Your task to perform on an android device: Go to ESPN.com Image 0: 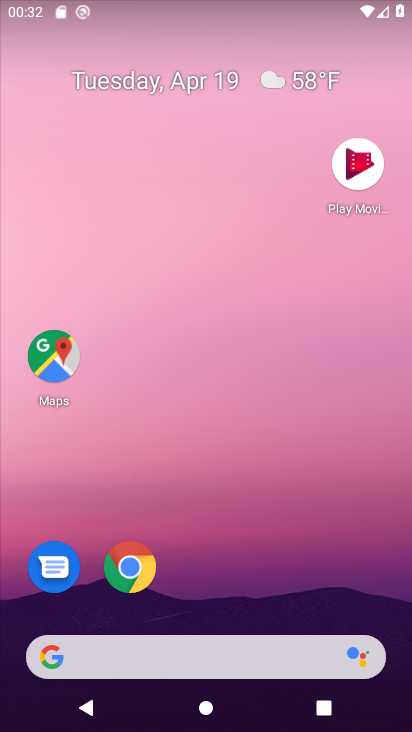
Step 0: drag from (215, 630) to (261, 371)
Your task to perform on an android device: Go to ESPN.com Image 1: 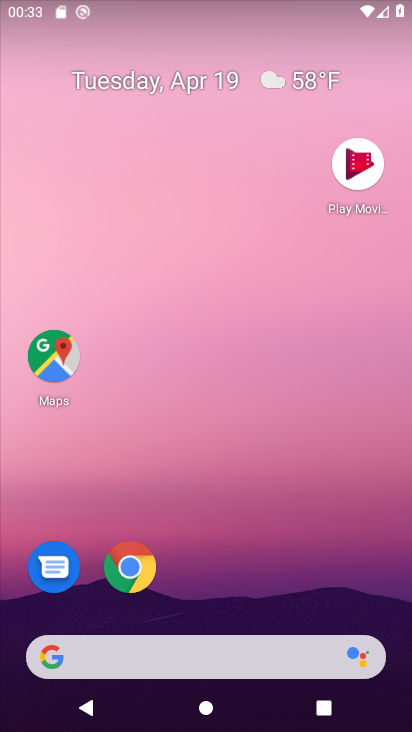
Step 1: drag from (213, 655) to (218, 99)
Your task to perform on an android device: Go to ESPN.com Image 2: 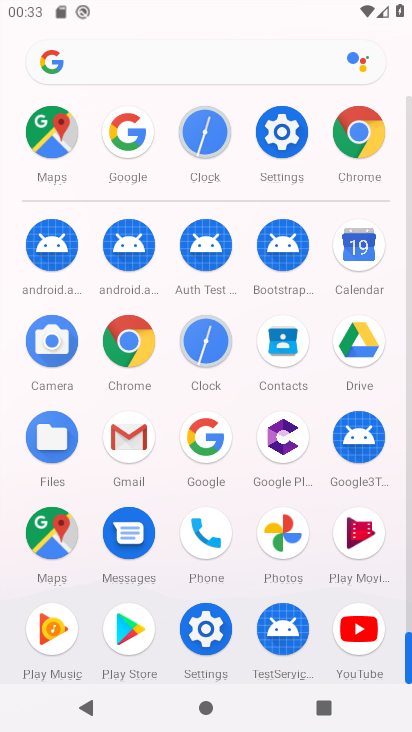
Step 2: click (129, 331)
Your task to perform on an android device: Go to ESPN.com Image 3: 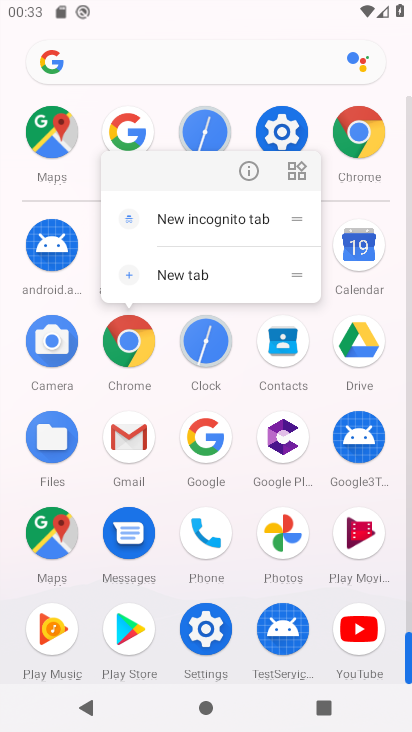
Step 3: click (255, 170)
Your task to perform on an android device: Go to ESPN.com Image 4: 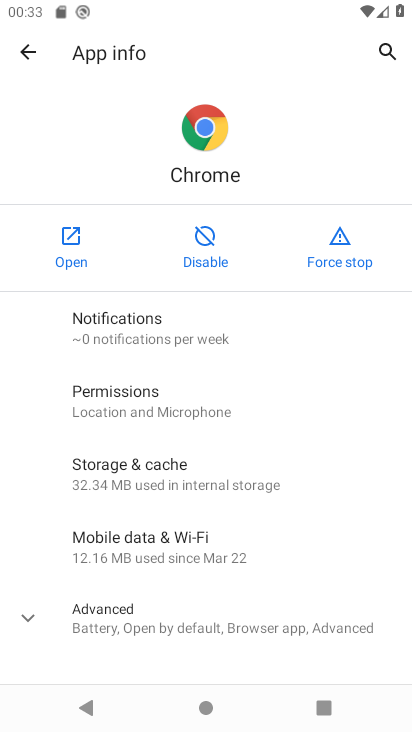
Step 4: click (79, 268)
Your task to perform on an android device: Go to ESPN.com Image 5: 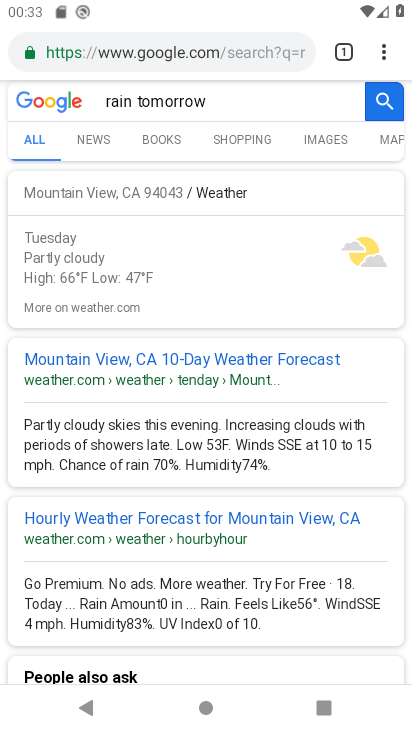
Step 5: click (173, 60)
Your task to perform on an android device: Go to ESPN.com Image 6: 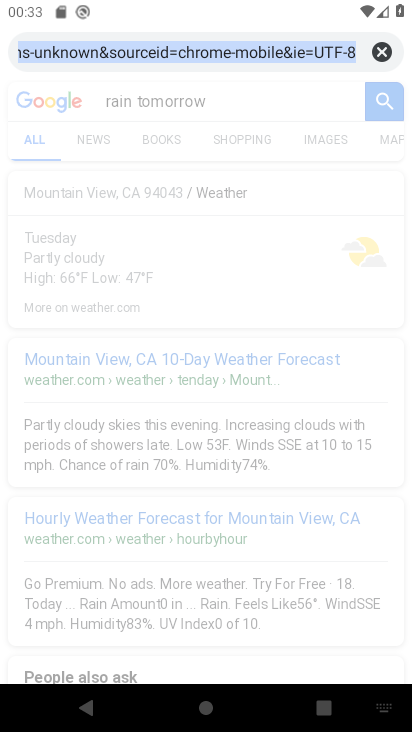
Step 6: click (376, 54)
Your task to perform on an android device: Go to ESPN.com Image 7: 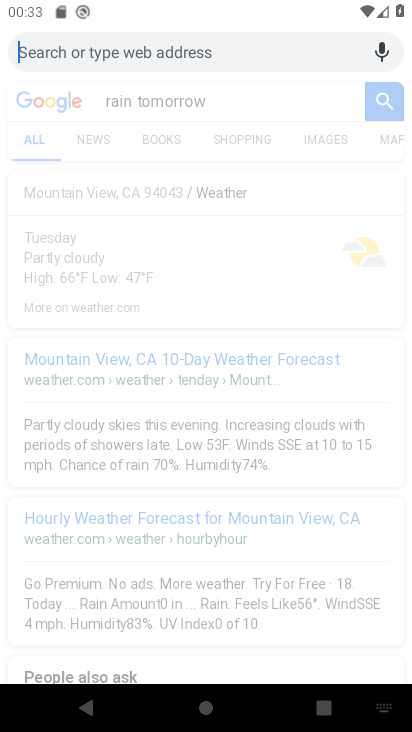
Step 7: type "espn"
Your task to perform on an android device: Go to ESPN.com Image 8: 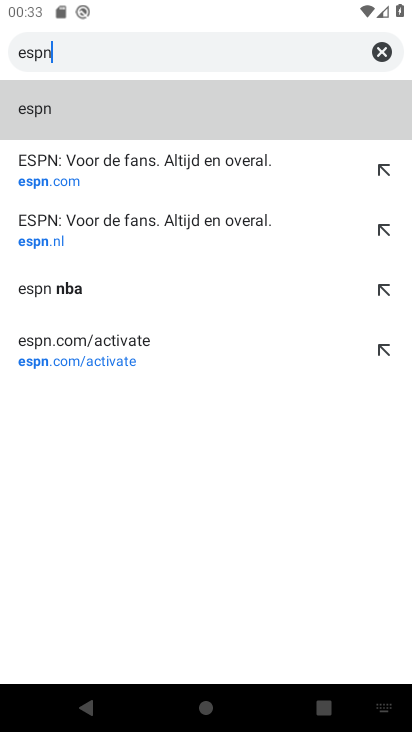
Step 8: click (65, 192)
Your task to perform on an android device: Go to ESPN.com Image 9: 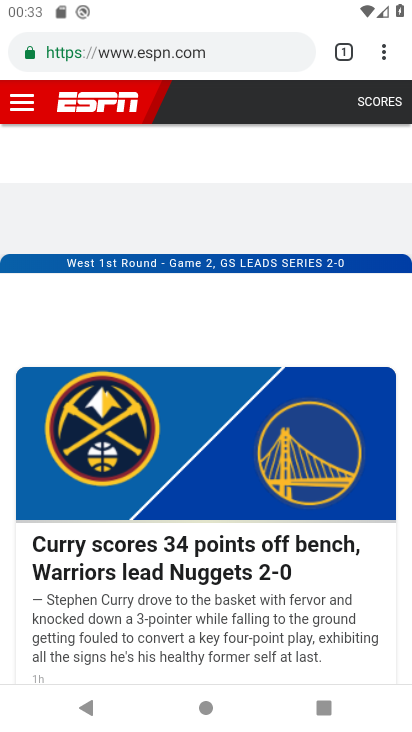
Step 9: click (157, 530)
Your task to perform on an android device: Go to ESPN.com Image 10: 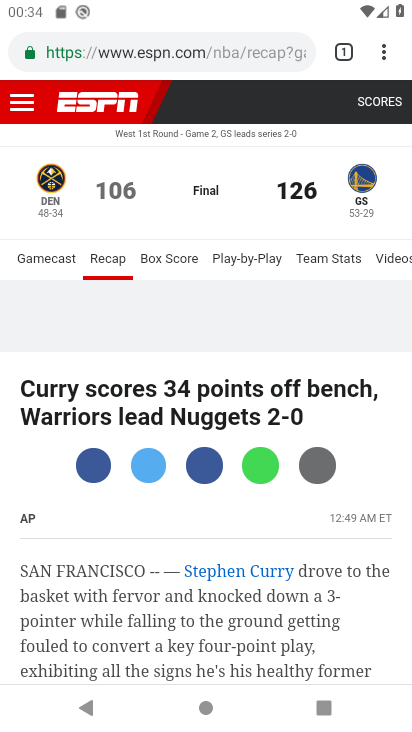
Step 10: task complete